Your task to perform on an android device: delete browsing data in the chrome app Image 0: 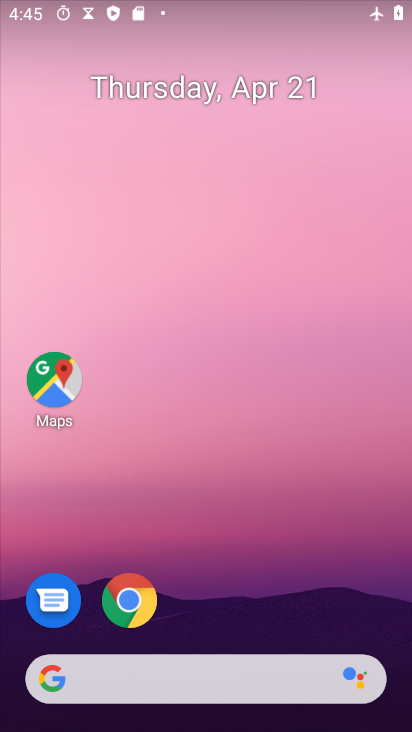
Step 0: click (129, 597)
Your task to perform on an android device: delete browsing data in the chrome app Image 1: 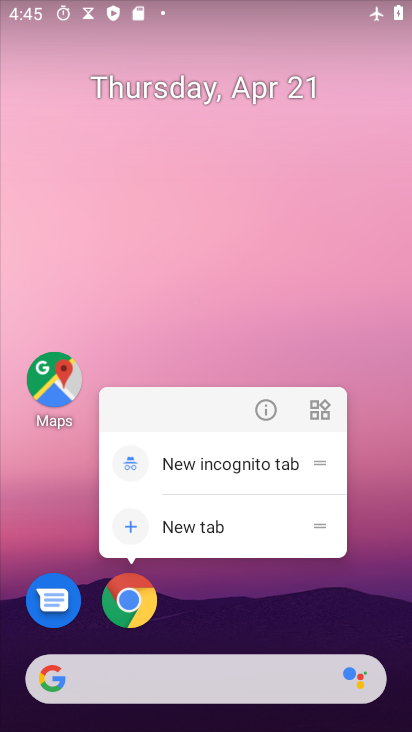
Step 1: click (129, 597)
Your task to perform on an android device: delete browsing data in the chrome app Image 2: 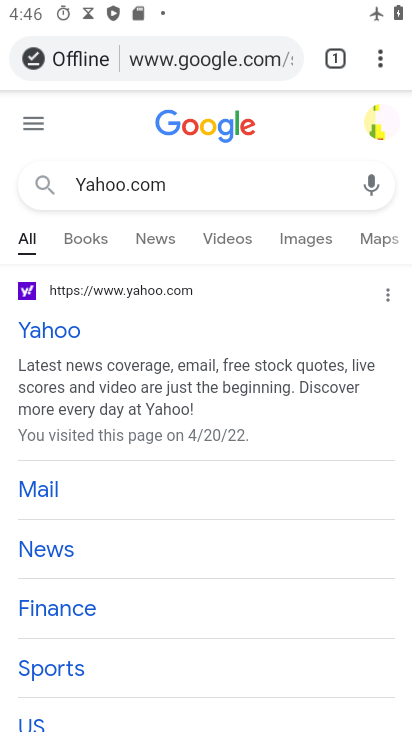
Step 2: click (384, 59)
Your task to perform on an android device: delete browsing data in the chrome app Image 3: 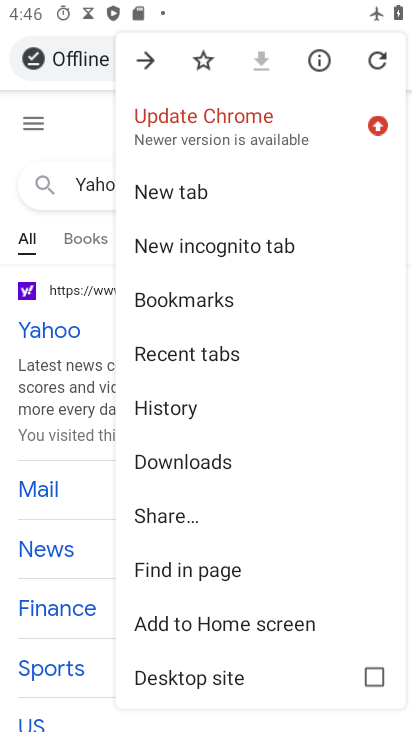
Step 3: drag from (232, 560) to (246, 418)
Your task to perform on an android device: delete browsing data in the chrome app Image 4: 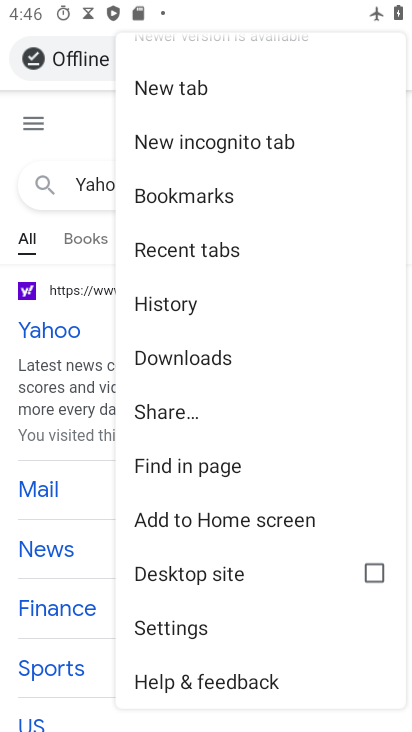
Step 4: click (178, 632)
Your task to perform on an android device: delete browsing data in the chrome app Image 5: 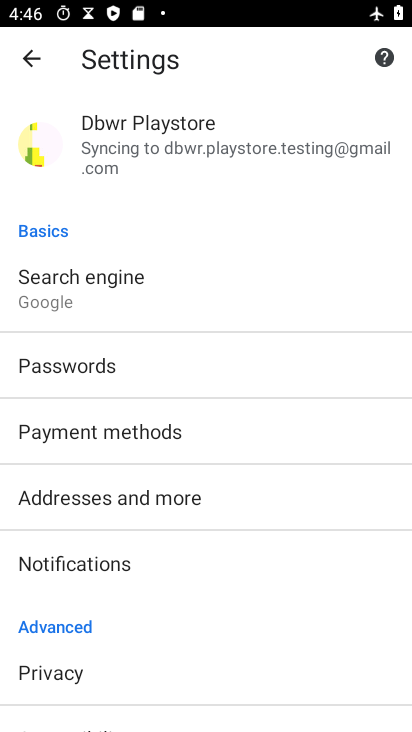
Step 5: drag from (145, 594) to (189, 459)
Your task to perform on an android device: delete browsing data in the chrome app Image 6: 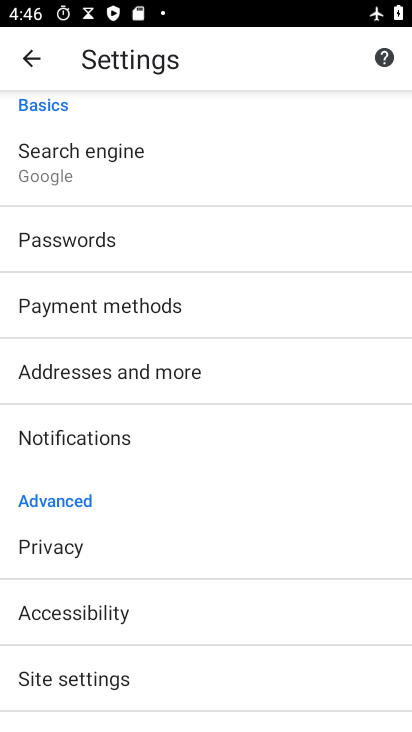
Step 6: drag from (143, 538) to (173, 468)
Your task to perform on an android device: delete browsing data in the chrome app Image 7: 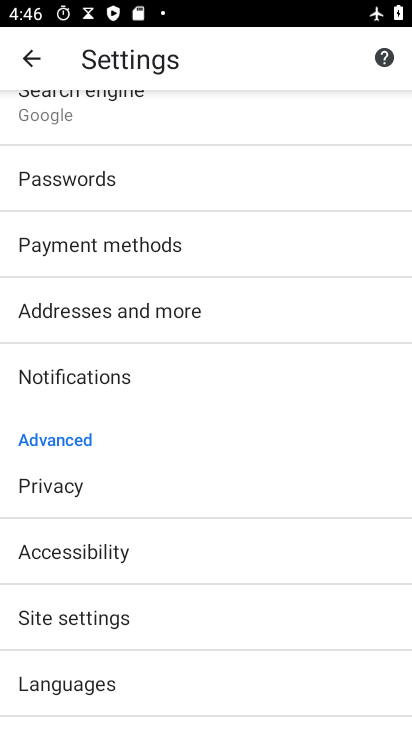
Step 7: drag from (156, 567) to (188, 495)
Your task to perform on an android device: delete browsing data in the chrome app Image 8: 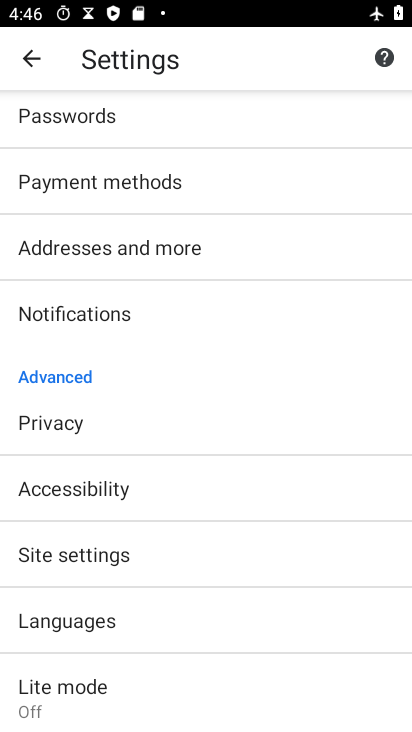
Step 8: click (81, 434)
Your task to perform on an android device: delete browsing data in the chrome app Image 9: 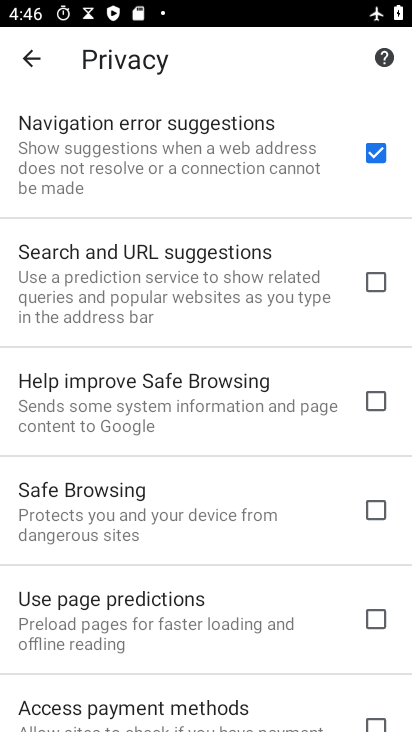
Step 9: drag from (252, 532) to (298, 421)
Your task to perform on an android device: delete browsing data in the chrome app Image 10: 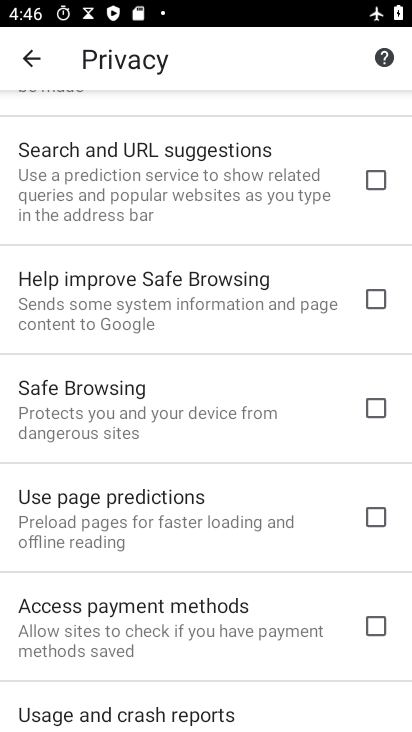
Step 10: drag from (203, 558) to (234, 426)
Your task to perform on an android device: delete browsing data in the chrome app Image 11: 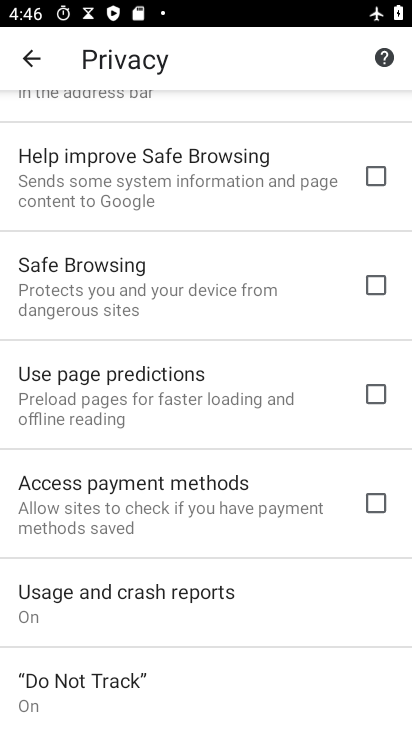
Step 11: drag from (188, 538) to (229, 421)
Your task to perform on an android device: delete browsing data in the chrome app Image 12: 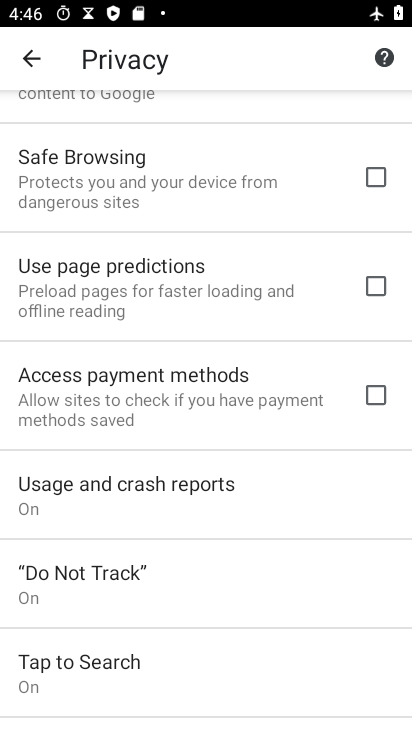
Step 12: drag from (72, 531) to (161, 380)
Your task to perform on an android device: delete browsing data in the chrome app Image 13: 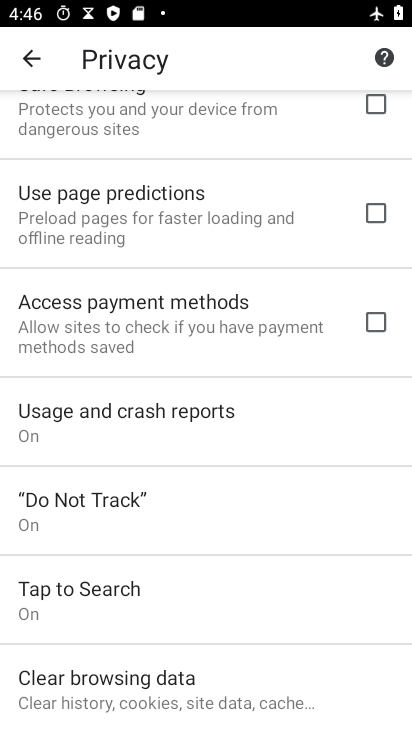
Step 13: click (109, 664)
Your task to perform on an android device: delete browsing data in the chrome app Image 14: 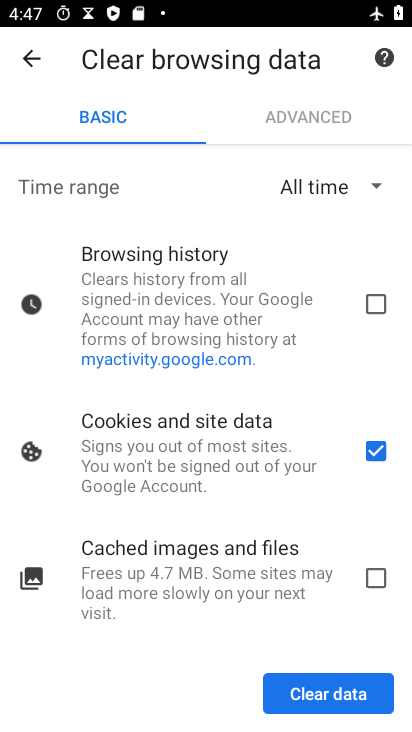
Step 14: click (374, 307)
Your task to perform on an android device: delete browsing data in the chrome app Image 15: 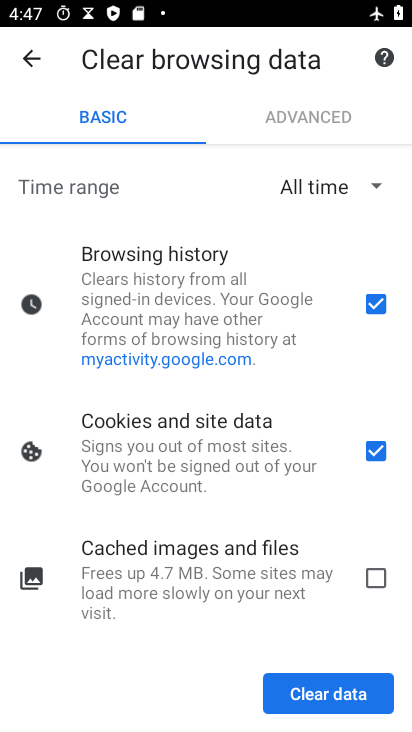
Step 15: click (382, 460)
Your task to perform on an android device: delete browsing data in the chrome app Image 16: 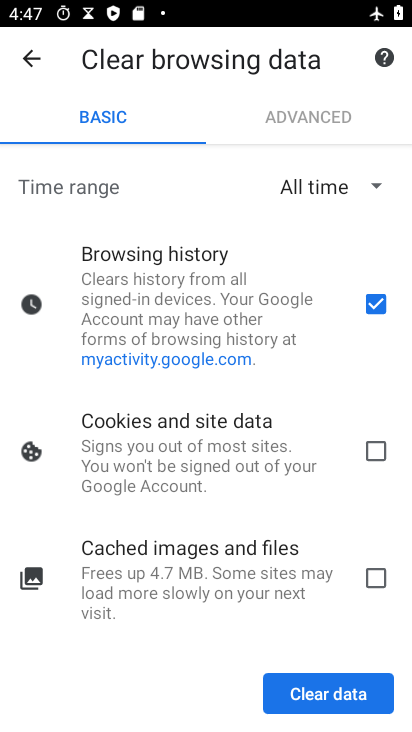
Step 16: click (325, 692)
Your task to perform on an android device: delete browsing data in the chrome app Image 17: 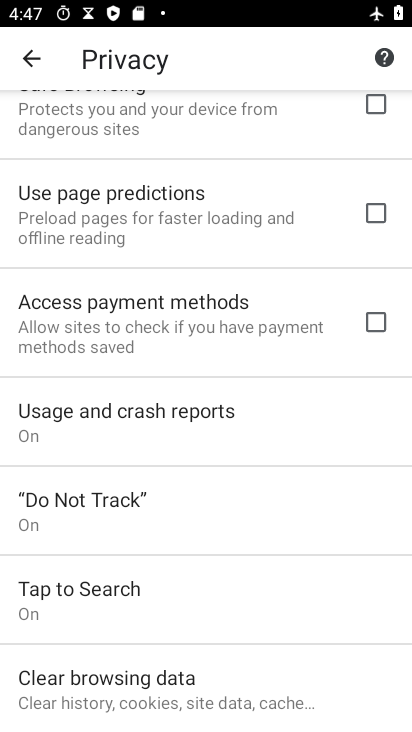
Step 17: task complete